Your task to perform on an android device: turn off wifi Image 0: 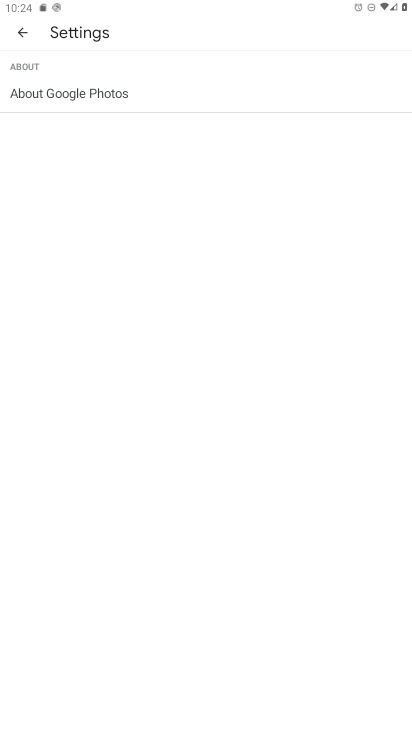
Step 0: press home button
Your task to perform on an android device: turn off wifi Image 1: 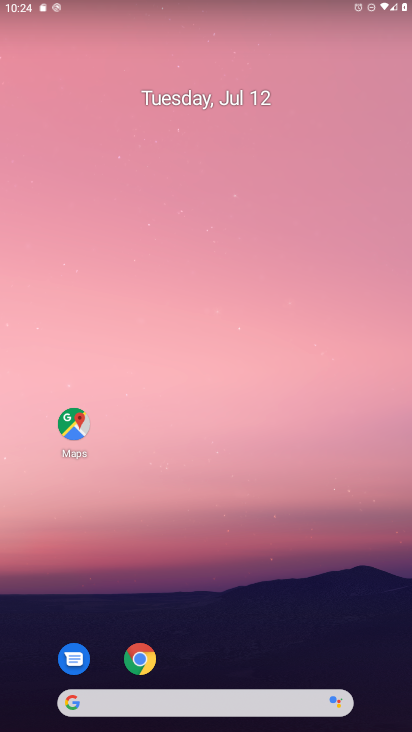
Step 1: drag from (184, 700) to (202, 29)
Your task to perform on an android device: turn off wifi Image 2: 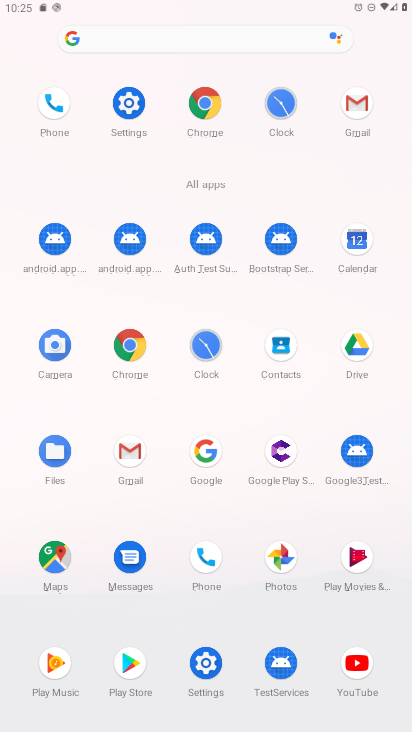
Step 2: click (114, 114)
Your task to perform on an android device: turn off wifi Image 3: 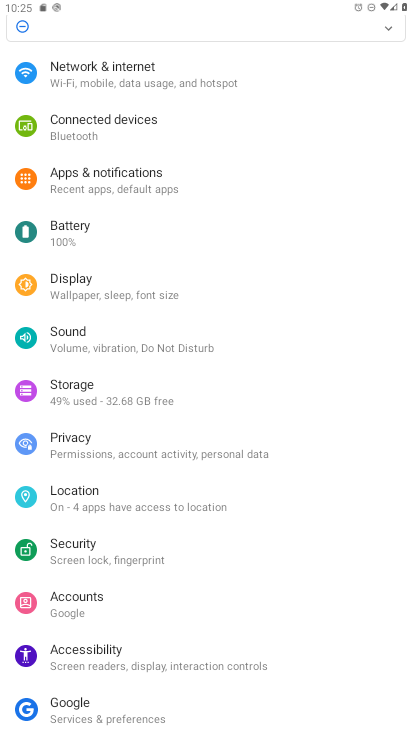
Step 3: click (126, 81)
Your task to perform on an android device: turn off wifi Image 4: 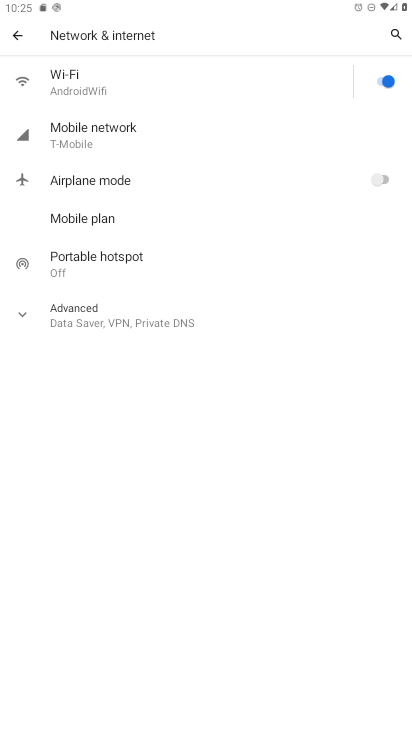
Step 4: click (388, 84)
Your task to perform on an android device: turn off wifi Image 5: 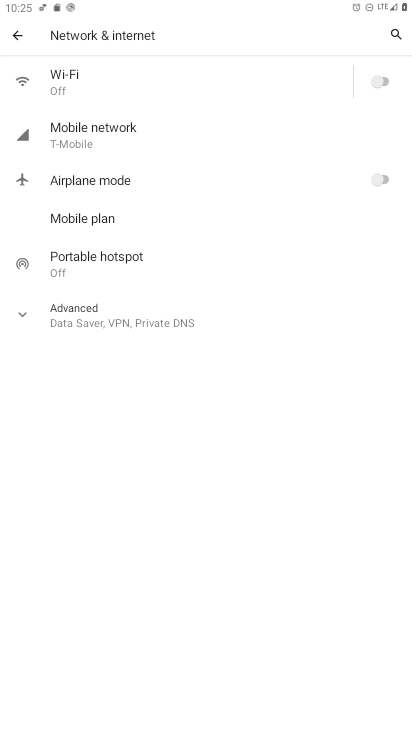
Step 5: task complete